Your task to perform on an android device: Go to settings Image 0: 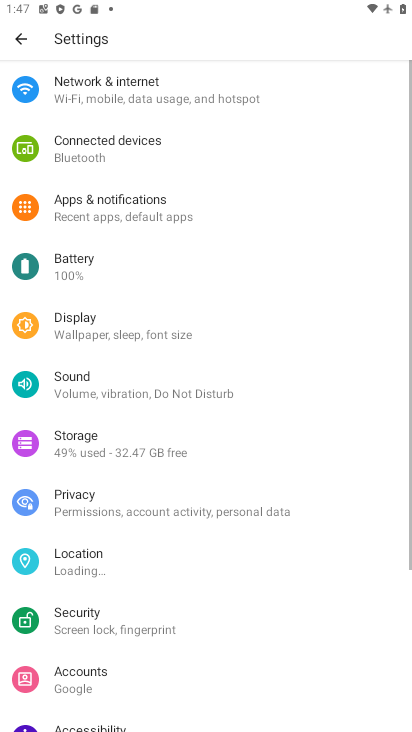
Step 0: press home button
Your task to perform on an android device: Go to settings Image 1: 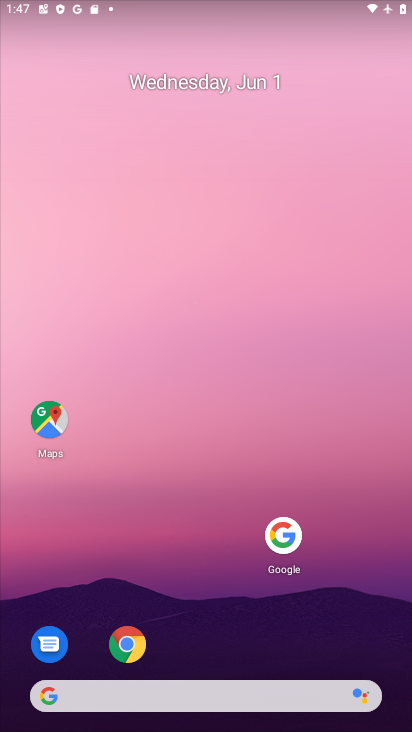
Step 1: drag from (237, 131) to (241, 61)
Your task to perform on an android device: Go to settings Image 2: 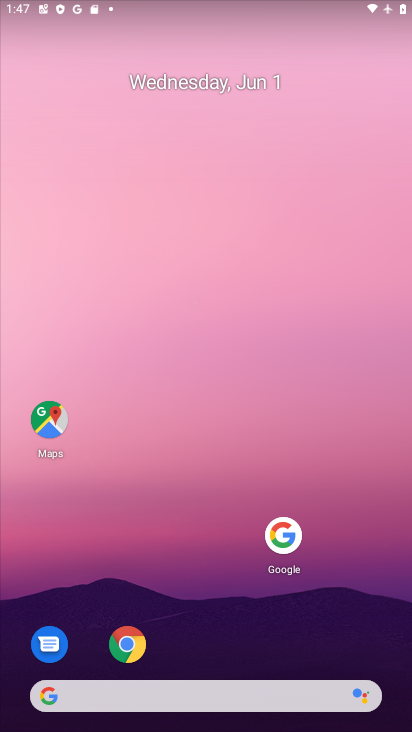
Step 2: drag from (203, 696) to (255, 46)
Your task to perform on an android device: Go to settings Image 3: 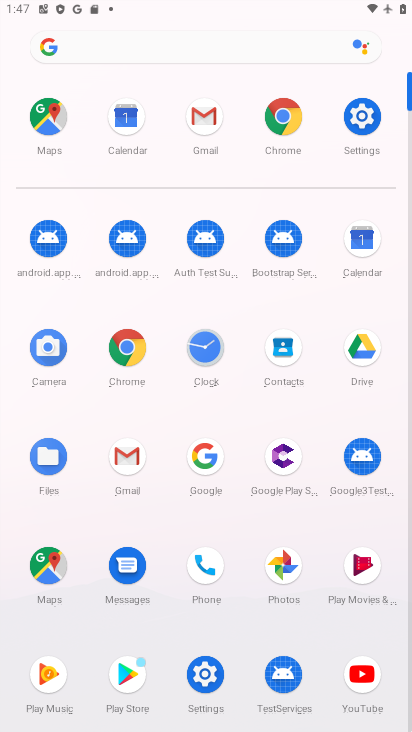
Step 3: click (359, 114)
Your task to perform on an android device: Go to settings Image 4: 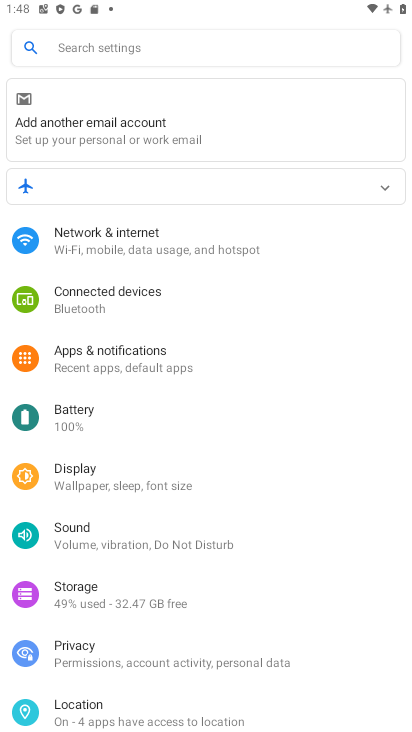
Step 4: task complete